Your task to perform on an android device: Go to accessibility settings Image 0: 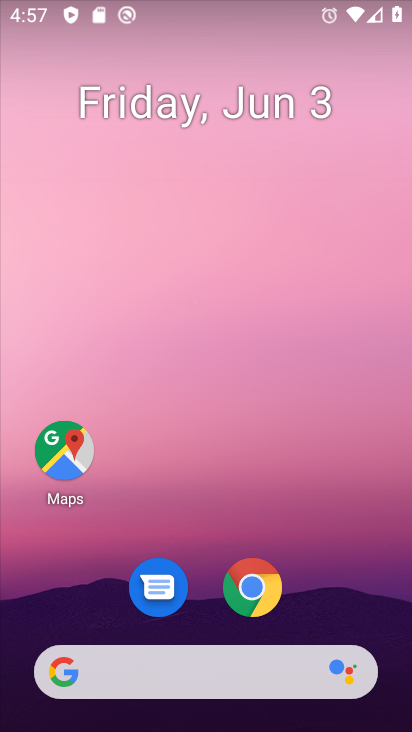
Step 0: drag from (183, 726) to (158, 59)
Your task to perform on an android device: Go to accessibility settings Image 1: 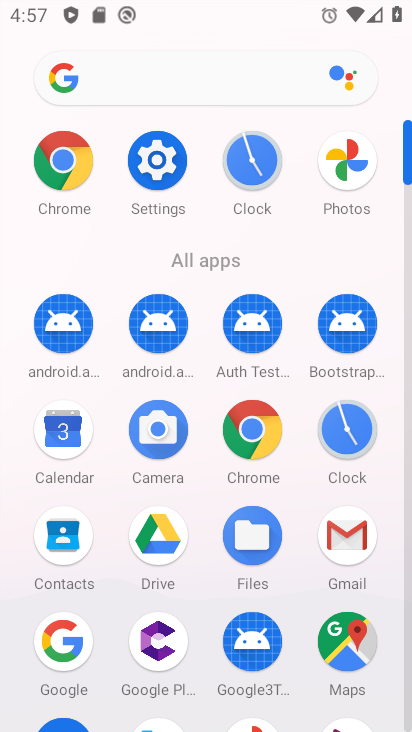
Step 1: click (165, 158)
Your task to perform on an android device: Go to accessibility settings Image 2: 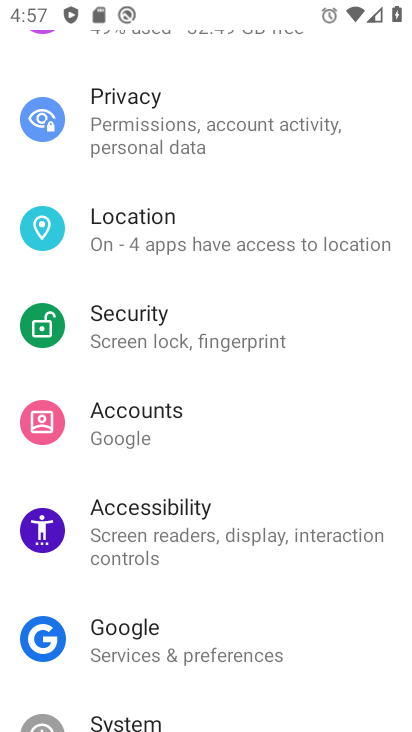
Step 2: click (155, 524)
Your task to perform on an android device: Go to accessibility settings Image 3: 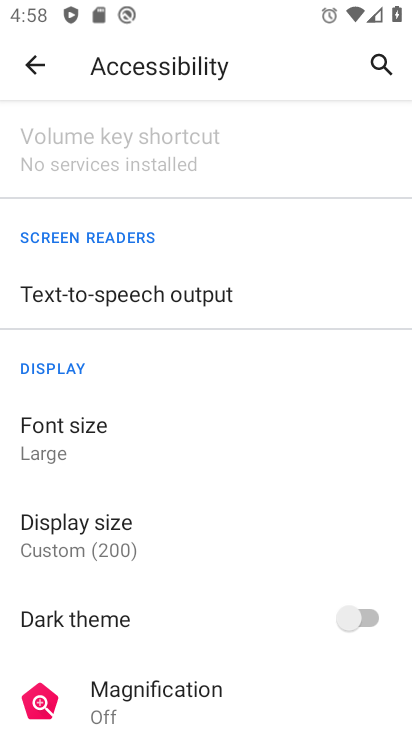
Step 3: task complete